Your task to perform on an android device: turn off translation in the chrome app Image 0: 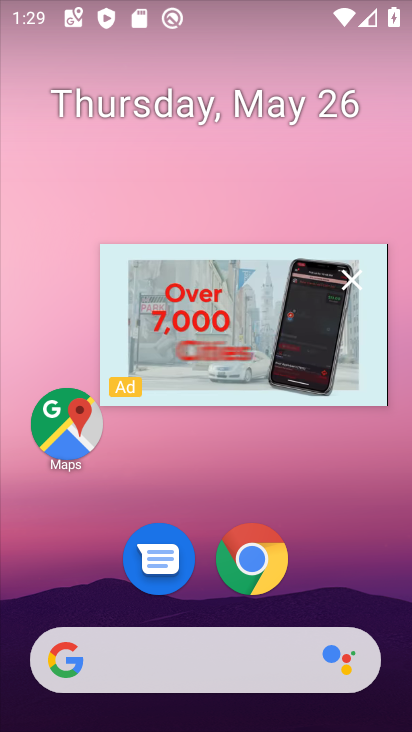
Step 0: click (348, 281)
Your task to perform on an android device: turn off translation in the chrome app Image 1: 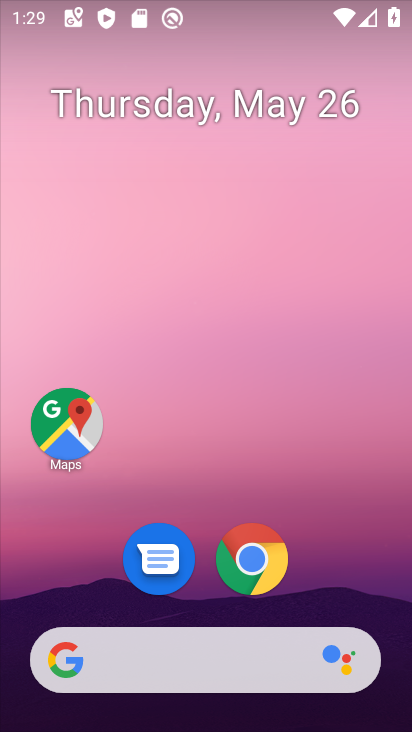
Step 1: click (234, 570)
Your task to perform on an android device: turn off translation in the chrome app Image 2: 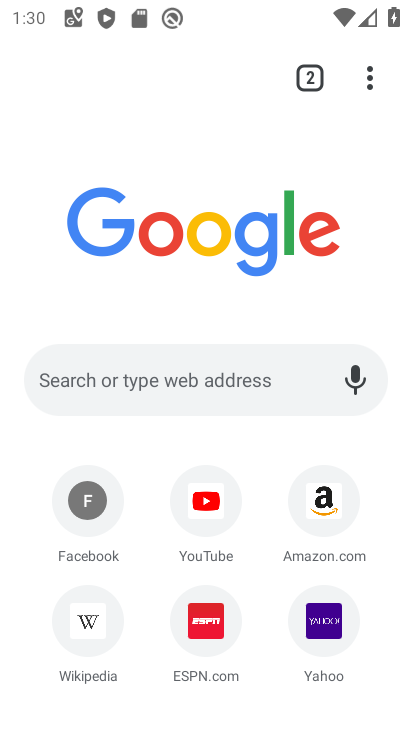
Step 2: drag from (368, 87) to (123, 651)
Your task to perform on an android device: turn off translation in the chrome app Image 3: 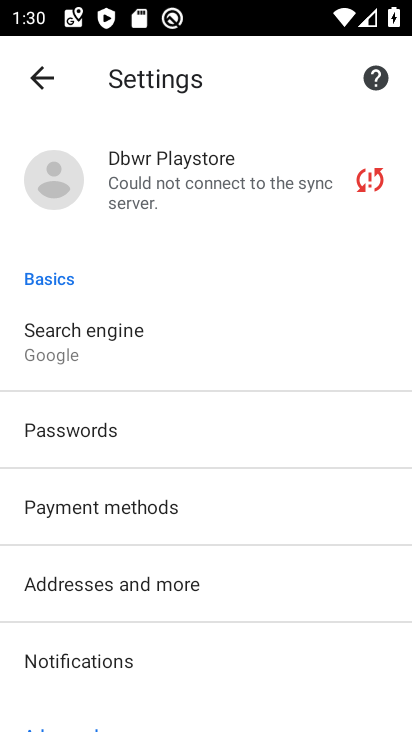
Step 3: drag from (151, 662) to (285, 194)
Your task to perform on an android device: turn off translation in the chrome app Image 4: 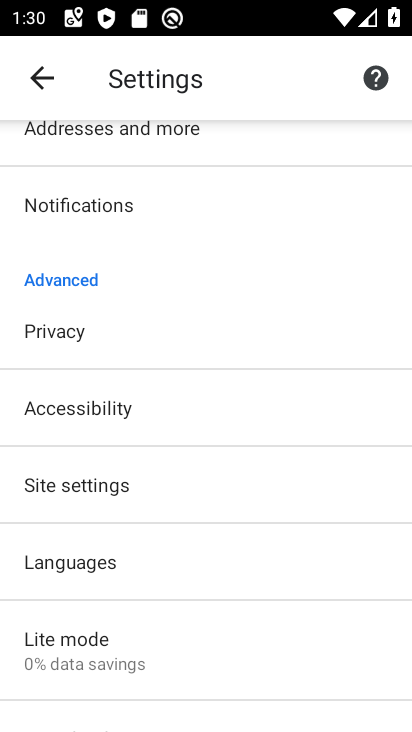
Step 4: click (130, 565)
Your task to perform on an android device: turn off translation in the chrome app Image 5: 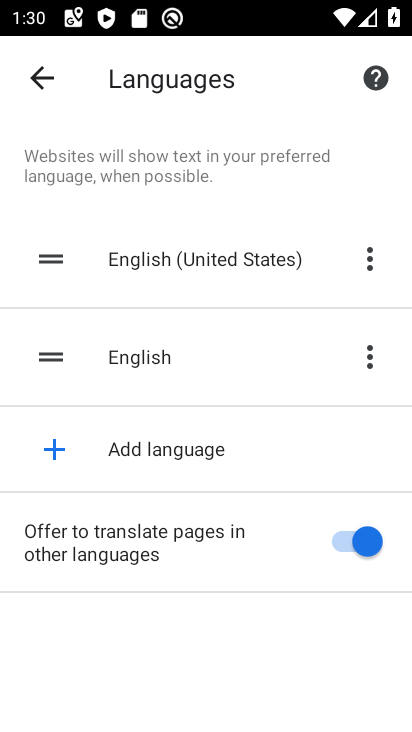
Step 5: click (344, 536)
Your task to perform on an android device: turn off translation in the chrome app Image 6: 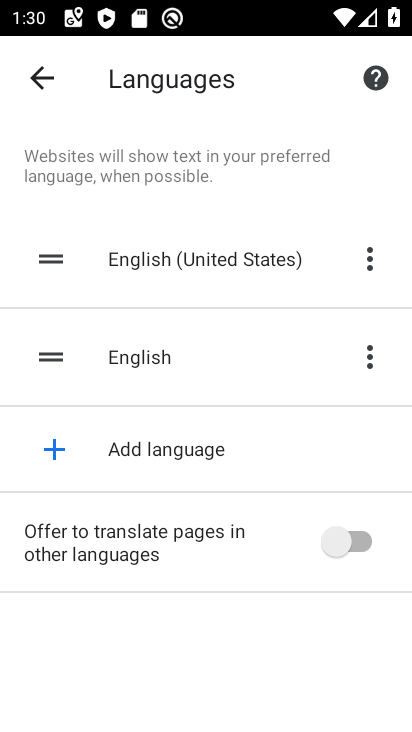
Step 6: task complete